Your task to perform on an android device: Open Google Chrome and click the shortcut for Amazon.com Image 0: 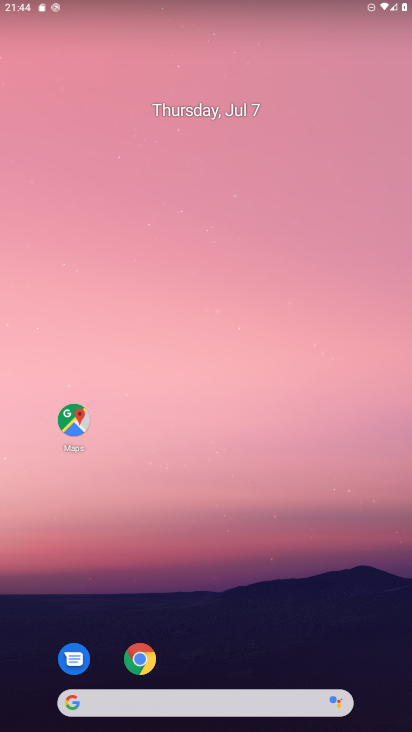
Step 0: click (144, 654)
Your task to perform on an android device: Open Google Chrome and click the shortcut for Amazon.com Image 1: 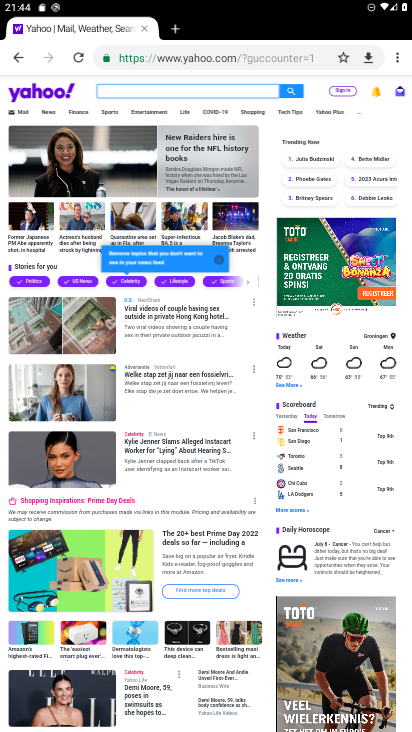
Step 1: click (144, 654)
Your task to perform on an android device: Open Google Chrome and click the shortcut for Amazon.com Image 2: 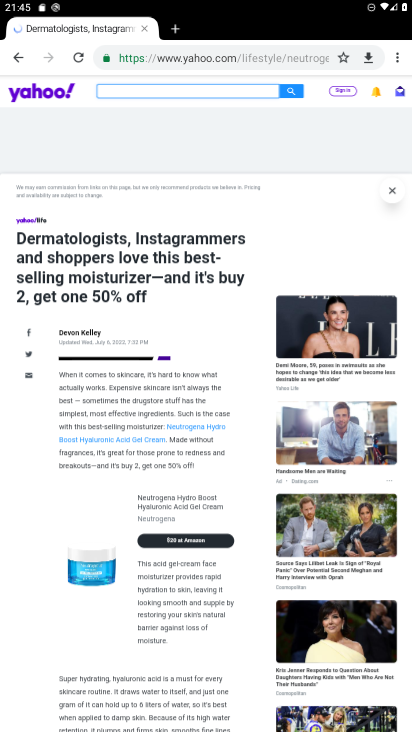
Step 2: click (399, 55)
Your task to perform on an android device: Open Google Chrome and click the shortcut for Amazon.com Image 3: 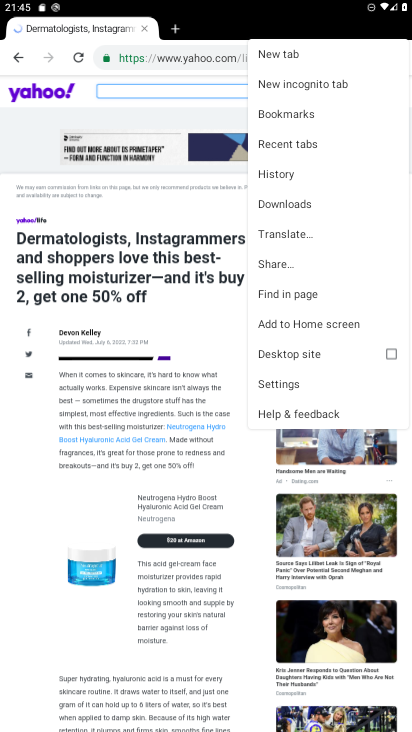
Step 3: click (287, 52)
Your task to perform on an android device: Open Google Chrome and click the shortcut for Amazon.com Image 4: 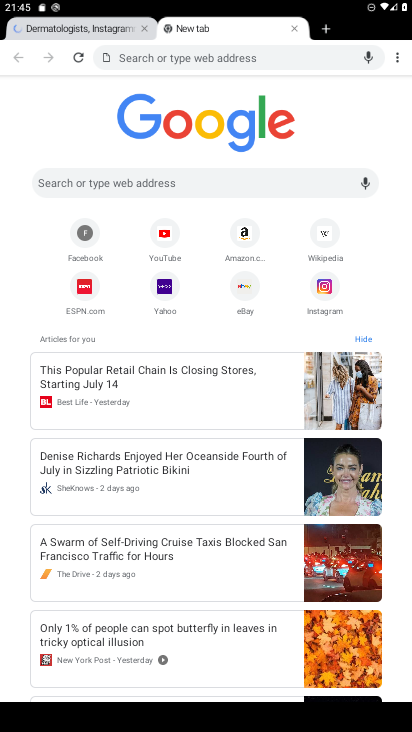
Step 4: click (239, 236)
Your task to perform on an android device: Open Google Chrome and click the shortcut for Amazon.com Image 5: 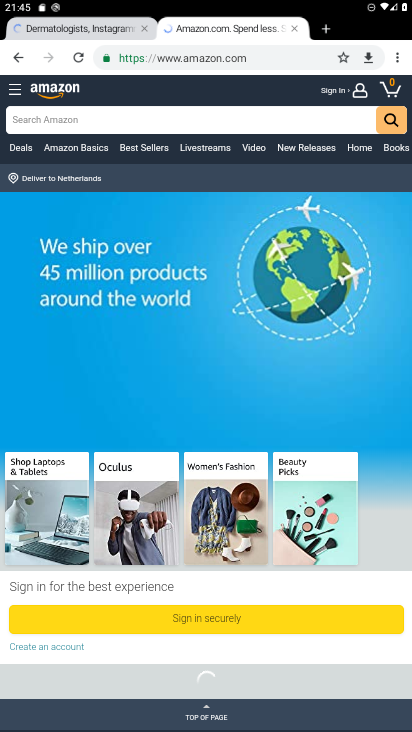
Step 5: task complete